Your task to perform on an android device: set the stopwatch Image 0: 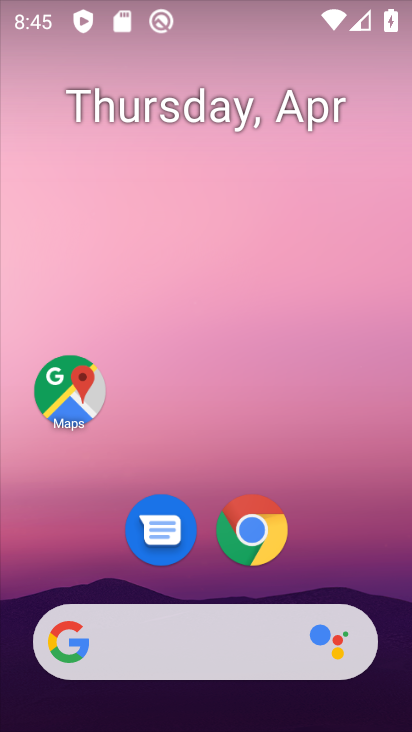
Step 0: drag from (362, 565) to (377, 129)
Your task to perform on an android device: set the stopwatch Image 1: 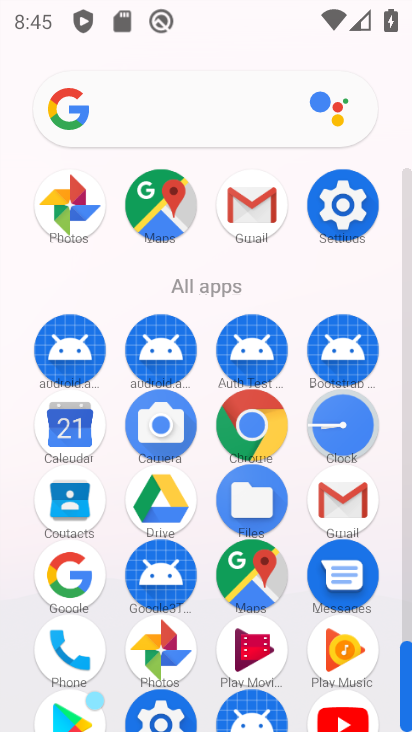
Step 1: click (350, 426)
Your task to perform on an android device: set the stopwatch Image 2: 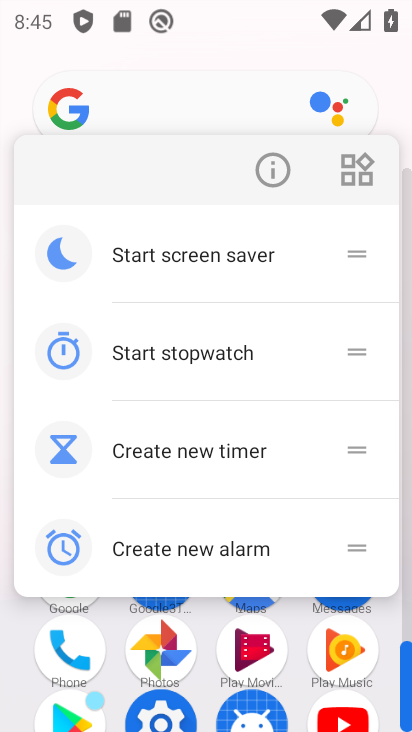
Step 2: click (232, 358)
Your task to perform on an android device: set the stopwatch Image 3: 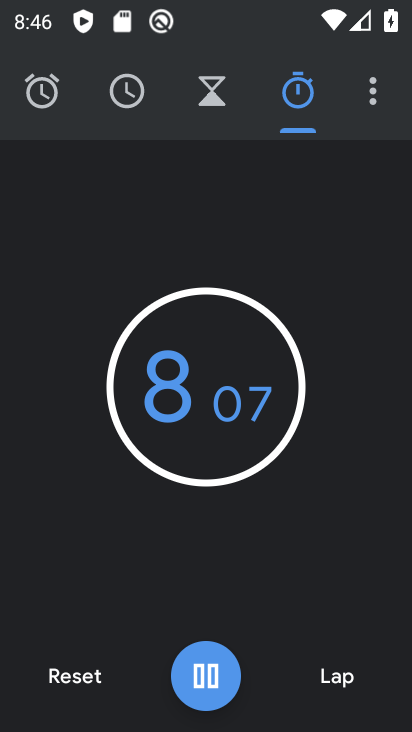
Step 3: task complete